Your task to perform on an android device: all mails in gmail Image 0: 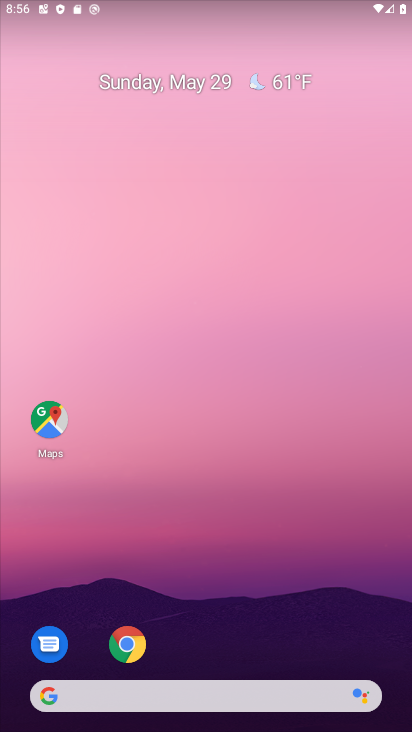
Step 0: press home button
Your task to perform on an android device: all mails in gmail Image 1: 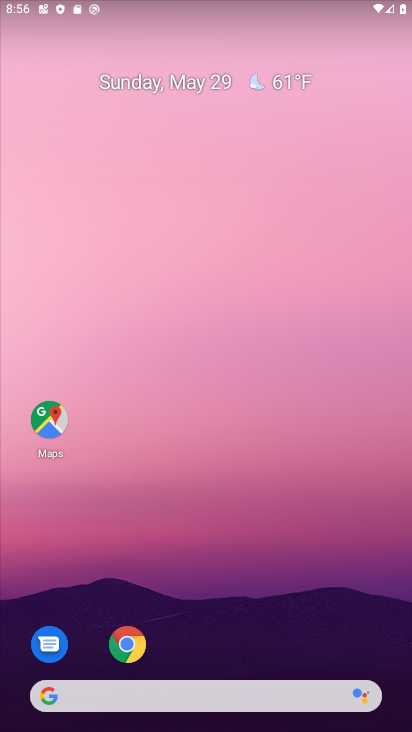
Step 1: drag from (188, 694) to (207, 12)
Your task to perform on an android device: all mails in gmail Image 2: 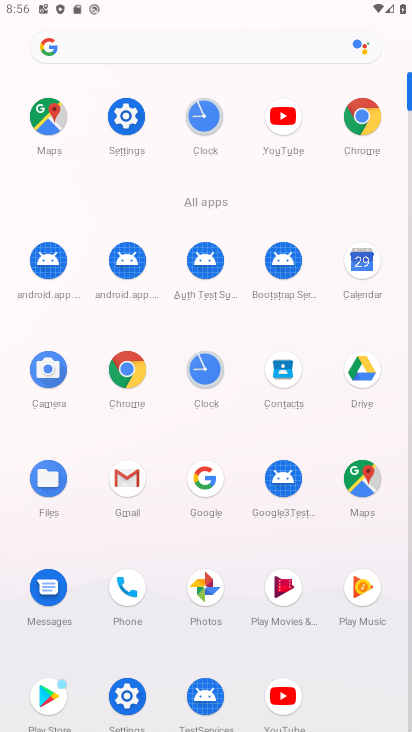
Step 2: click (121, 493)
Your task to perform on an android device: all mails in gmail Image 3: 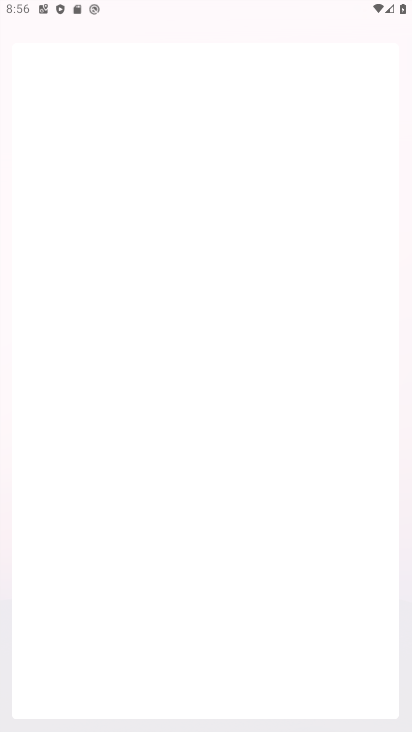
Step 3: click (121, 493)
Your task to perform on an android device: all mails in gmail Image 4: 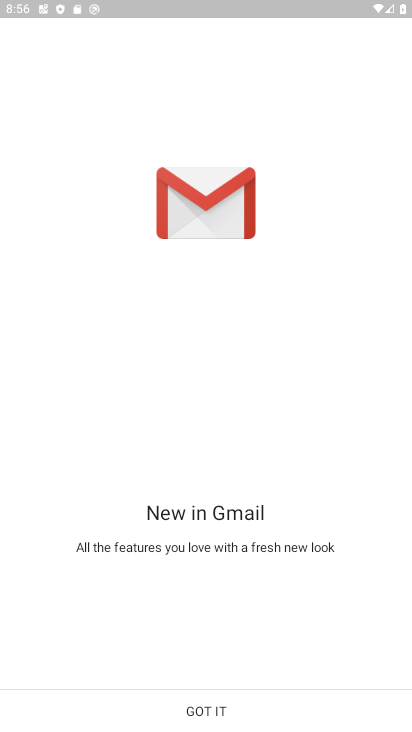
Step 4: click (210, 713)
Your task to perform on an android device: all mails in gmail Image 5: 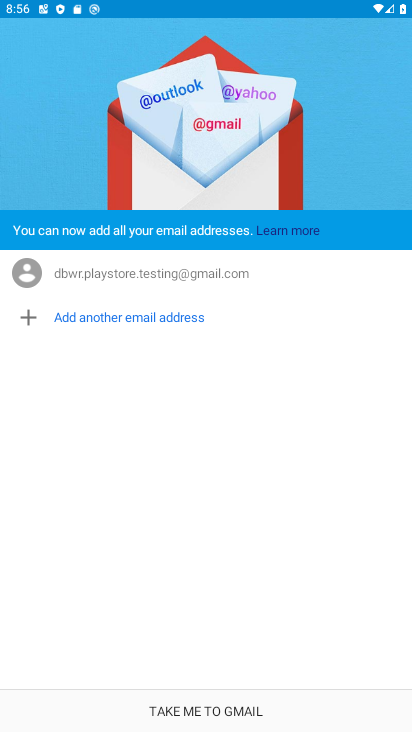
Step 5: click (210, 713)
Your task to perform on an android device: all mails in gmail Image 6: 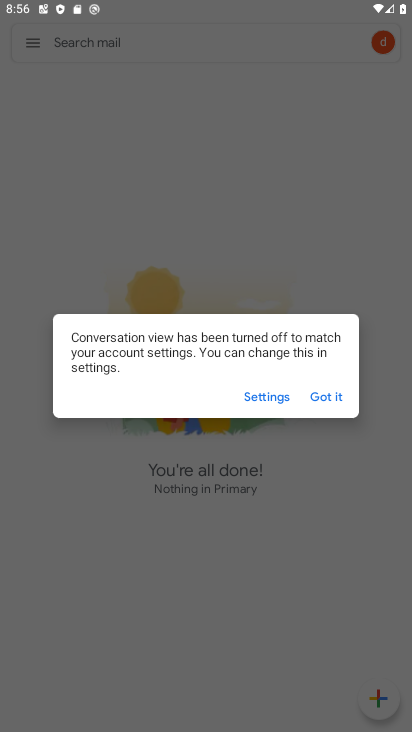
Step 6: click (326, 398)
Your task to perform on an android device: all mails in gmail Image 7: 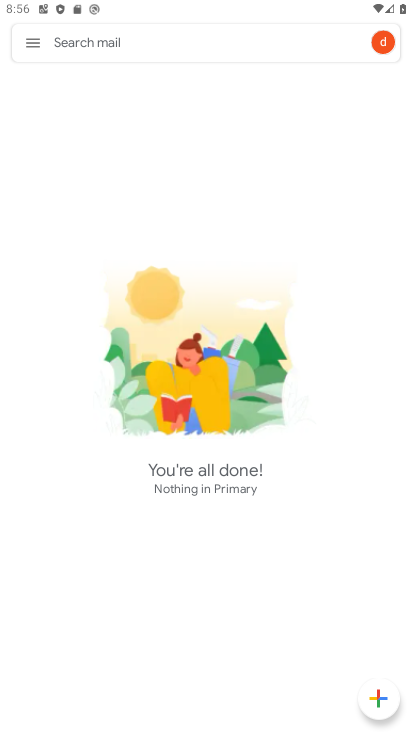
Step 7: click (27, 41)
Your task to perform on an android device: all mails in gmail Image 8: 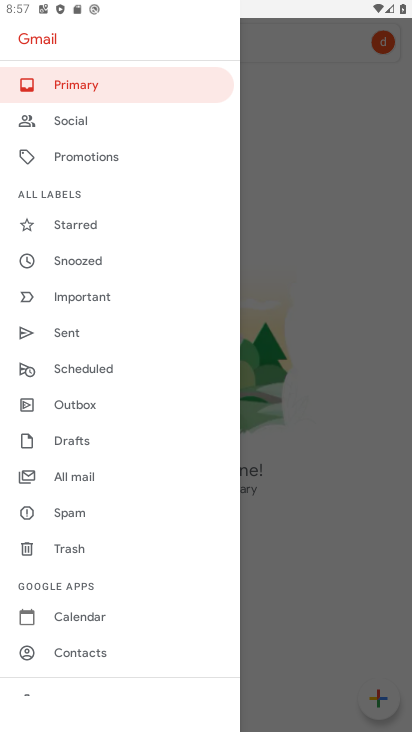
Step 8: click (85, 476)
Your task to perform on an android device: all mails in gmail Image 9: 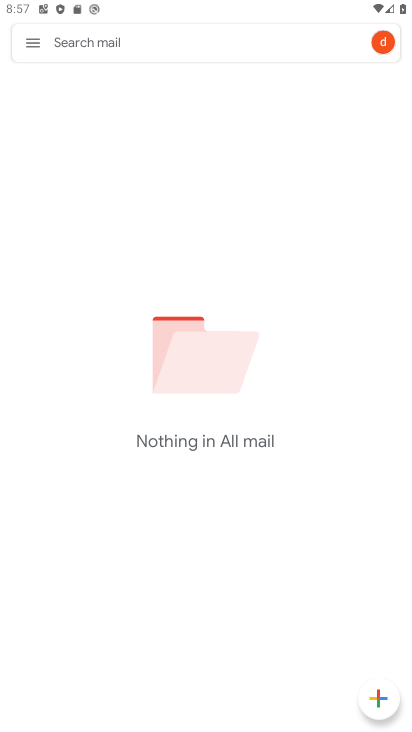
Step 9: task complete